Your task to perform on an android device: turn notification dots off Image 0: 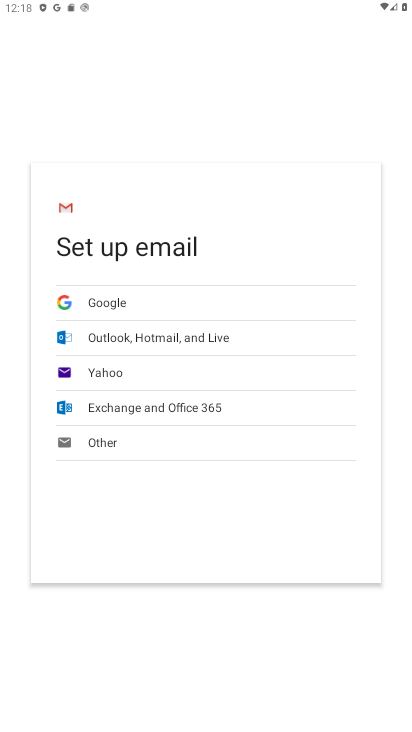
Step 0: press home button
Your task to perform on an android device: turn notification dots off Image 1: 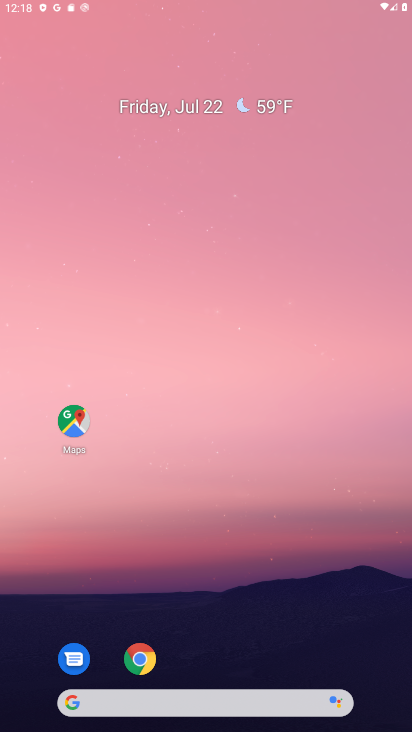
Step 1: drag from (301, 483) to (380, 36)
Your task to perform on an android device: turn notification dots off Image 2: 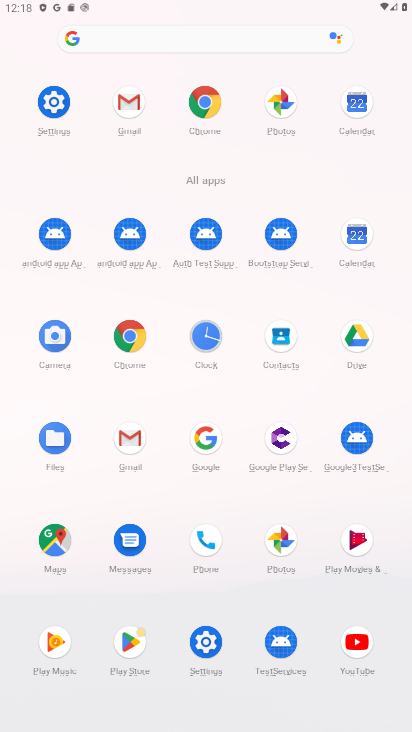
Step 2: click (42, 103)
Your task to perform on an android device: turn notification dots off Image 3: 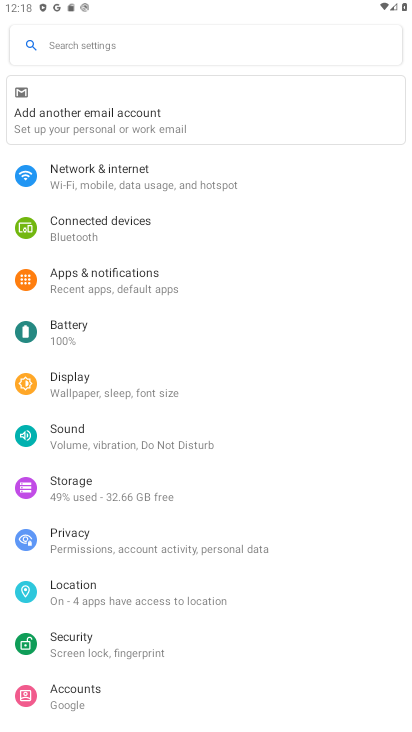
Step 3: click (141, 277)
Your task to perform on an android device: turn notification dots off Image 4: 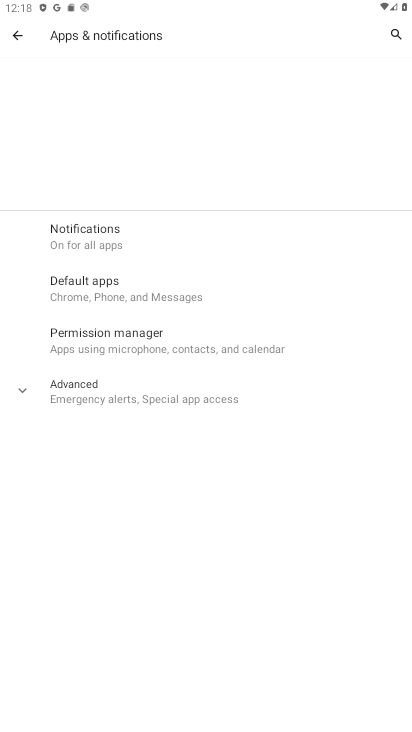
Step 4: click (121, 388)
Your task to perform on an android device: turn notification dots off Image 5: 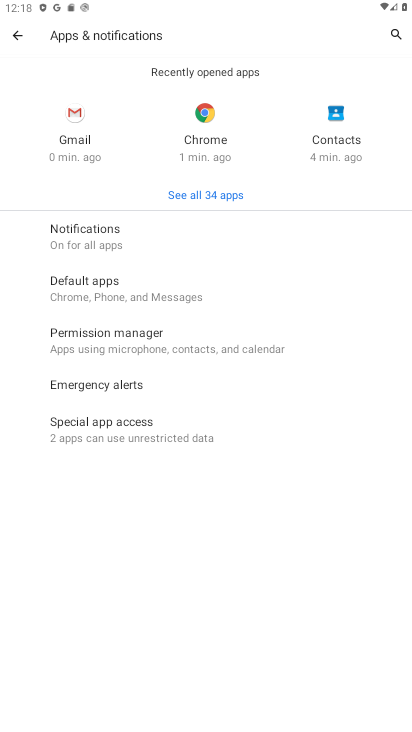
Step 5: click (102, 249)
Your task to perform on an android device: turn notification dots off Image 6: 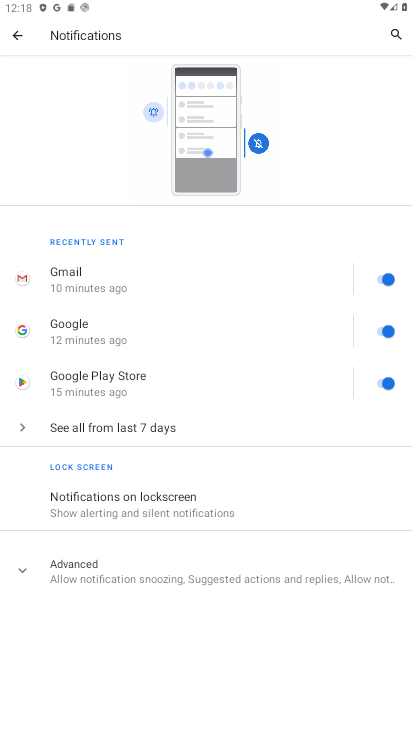
Step 6: click (134, 578)
Your task to perform on an android device: turn notification dots off Image 7: 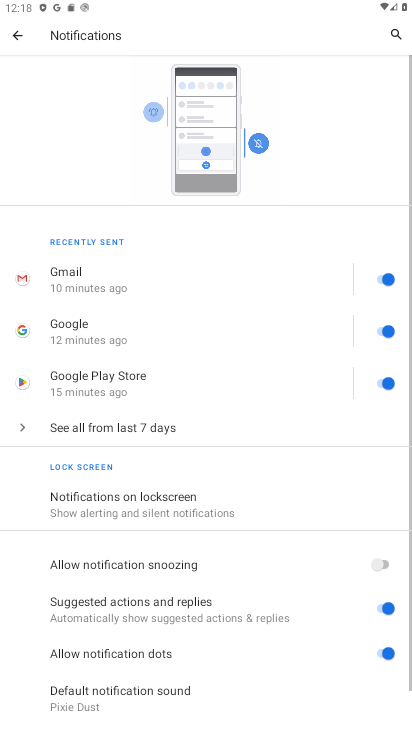
Step 7: drag from (258, 560) to (331, 330)
Your task to perform on an android device: turn notification dots off Image 8: 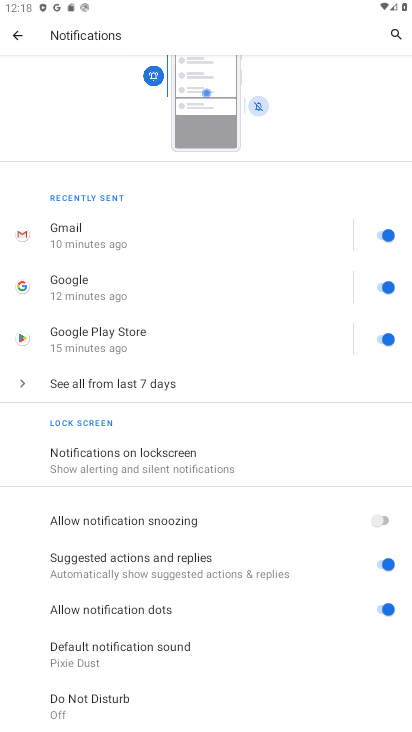
Step 8: click (379, 603)
Your task to perform on an android device: turn notification dots off Image 9: 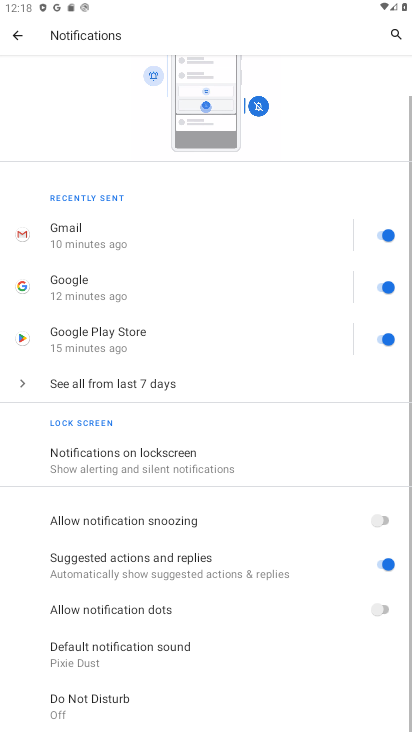
Step 9: task complete